Your task to perform on an android device: find which apps use the phone's location Image 0: 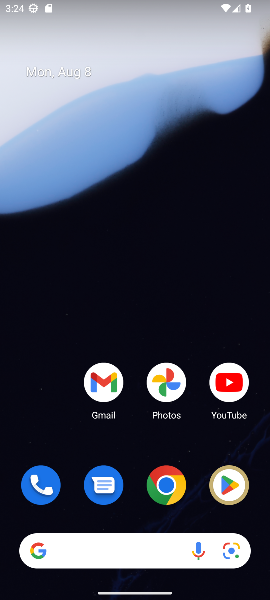
Step 0: drag from (208, 574) to (135, 47)
Your task to perform on an android device: find which apps use the phone's location Image 1: 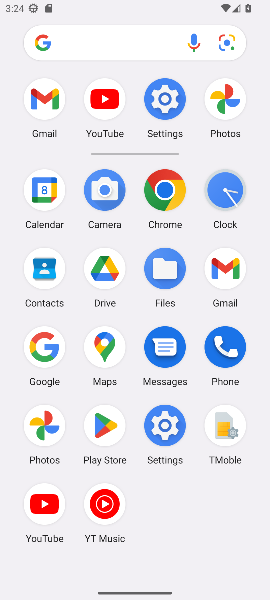
Step 1: click (161, 101)
Your task to perform on an android device: find which apps use the phone's location Image 2: 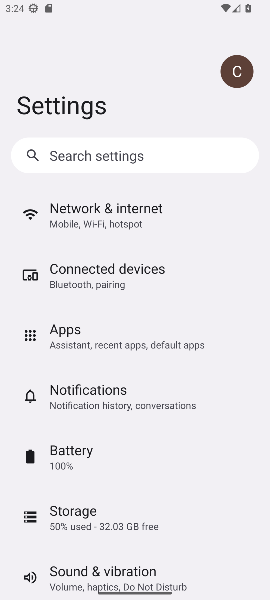
Step 2: drag from (93, 500) to (90, 83)
Your task to perform on an android device: find which apps use the phone's location Image 3: 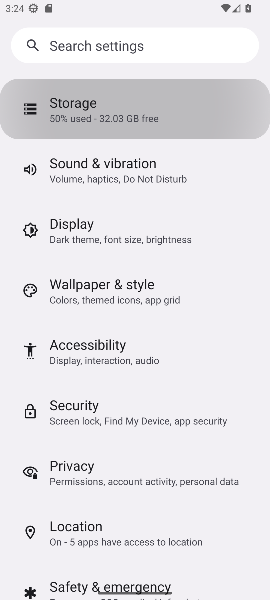
Step 3: drag from (130, 391) to (130, 127)
Your task to perform on an android device: find which apps use the phone's location Image 4: 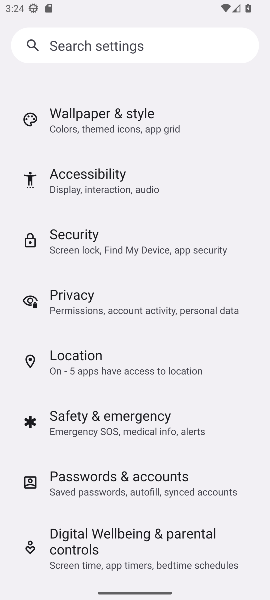
Step 4: drag from (110, 416) to (110, 147)
Your task to perform on an android device: find which apps use the phone's location Image 5: 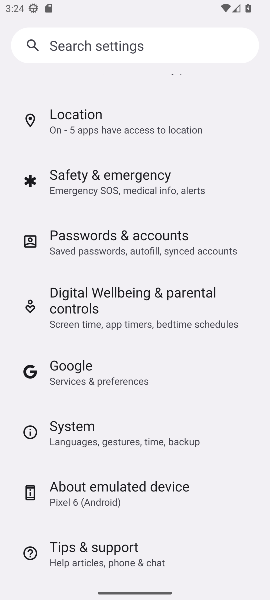
Step 5: click (87, 121)
Your task to perform on an android device: find which apps use the phone's location Image 6: 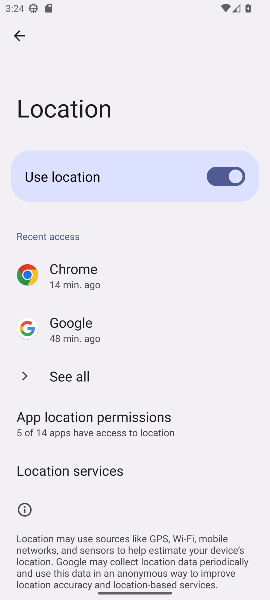
Step 6: click (88, 417)
Your task to perform on an android device: find which apps use the phone's location Image 7: 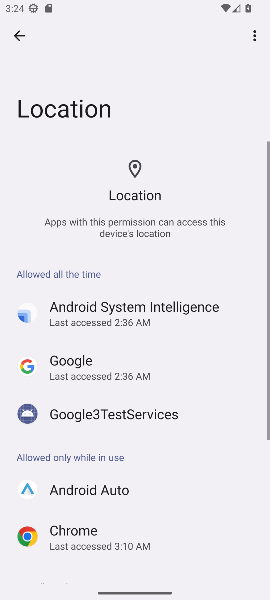
Step 7: drag from (107, 278) to (107, 107)
Your task to perform on an android device: find which apps use the phone's location Image 8: 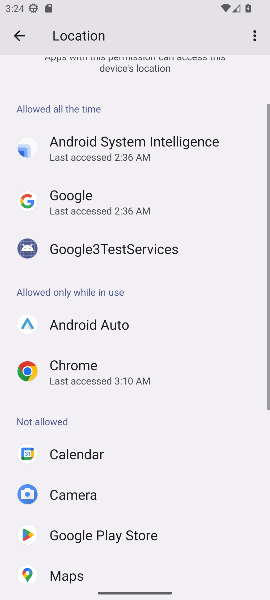
Step 8: click (106, 214)
Your task to perform on an android device: find which apps use the phone's location Image 9: 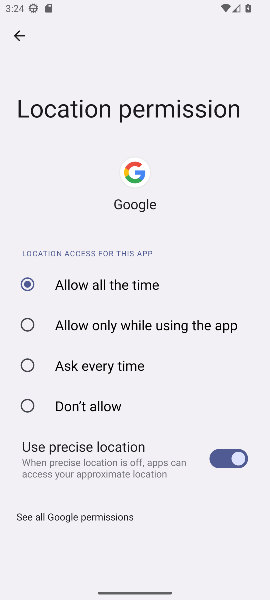
Step 9: task complete